Your task to perform on an android device: Open Amazon Image 0: 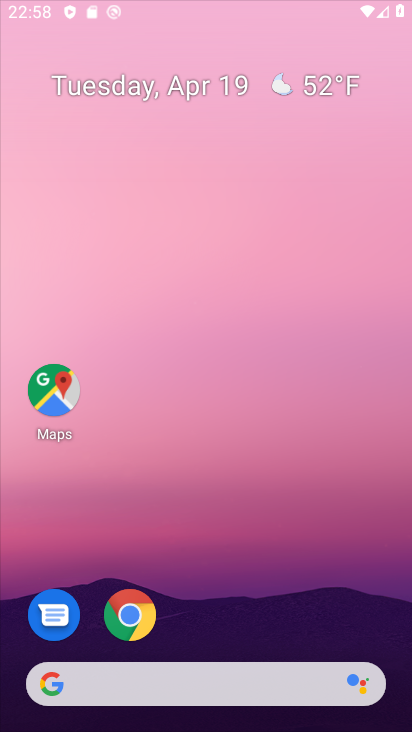
Step 0: drag from (207, 662) to (398, 77)
Your task to perform on an android device: Open Amazon Image 1: 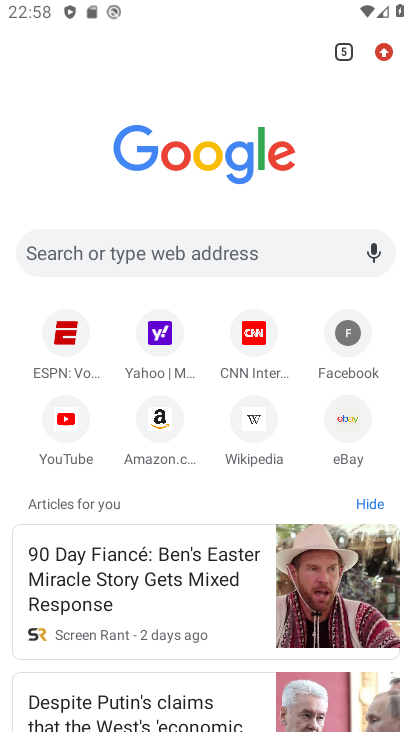
Step 1: click (146, 251)
Your task to perform on an android device: Open Amazon Image 2: 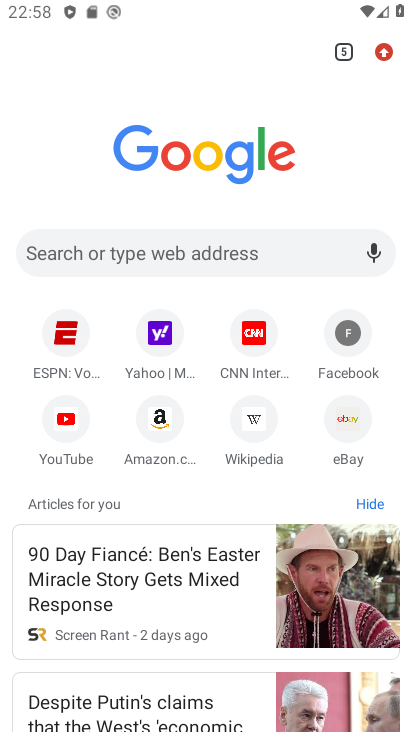
Step 2: click (146, 251)
Your task to perform on an android device: Open Amazon Image 3: 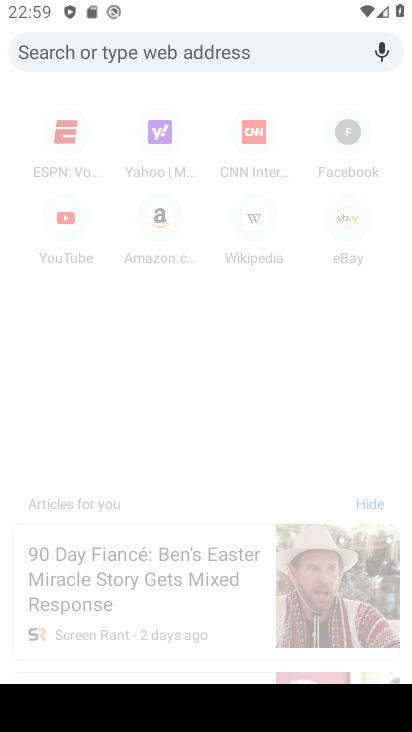
Step 3: type "amazon"
Your task to perform on an android device: Open Amazon Image 4: 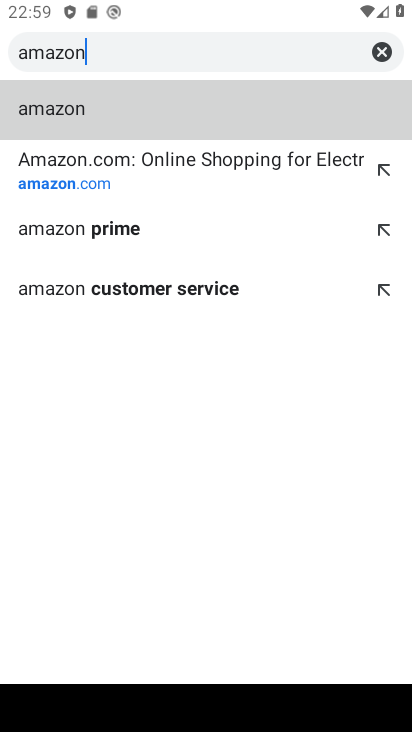
Step 4: click (35, 161)
Your task to perform on an android device: Open Amazon Image 5: 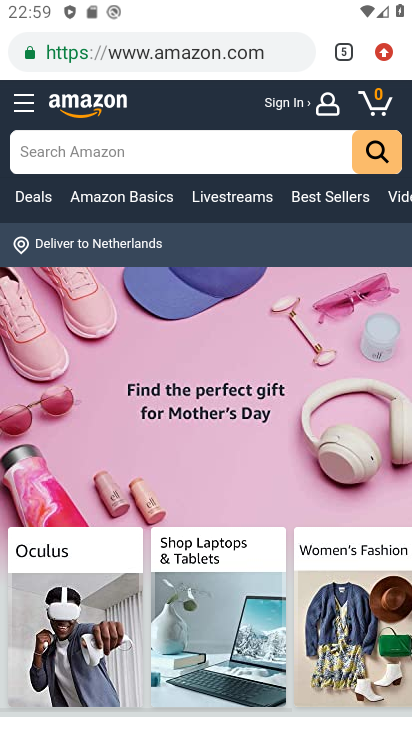
Step 5: task complete